Your task to perform on an android device: Search for the best custom wallets on Etsy. Image 0: 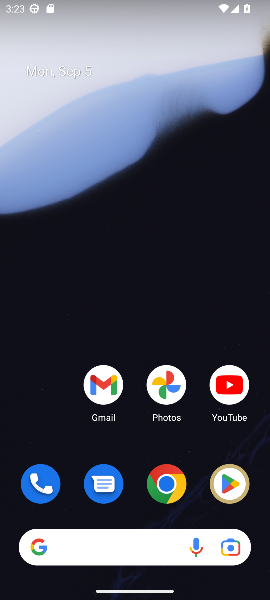
Step 0: click (170, 485)
Your task to perform on an android device: Search for the best custom wallets on Etsy. Image 1: 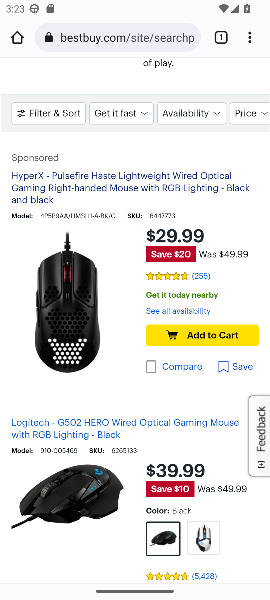
Step 1: click (151, 35)
Your task to perform on an android device: Search for the best custom wallets on Etsy. Image 2: 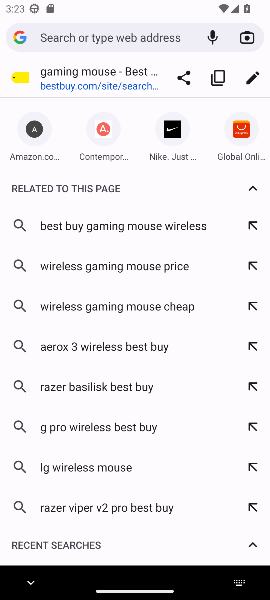
Step 2: type " Etsy"
Your task to perform on an android device: Search for the best custom wallets on Etsy. Image 3: 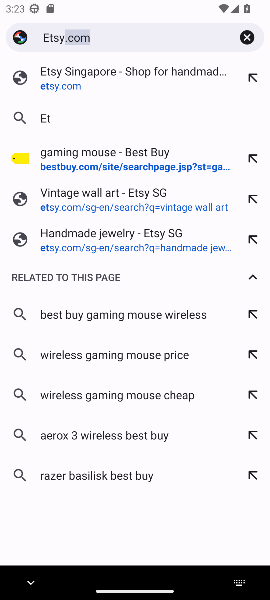
Step 3: press enter
Your task to perform on an android device: Search for the best custom wallets on Etsy. Image 4: 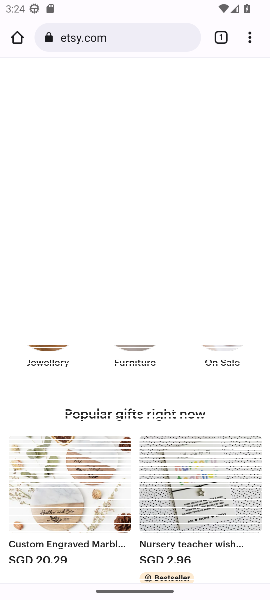
Step 4: drag from (98, 470) to (154, 355)
Your task to perform on an android device: Search for the best custom wallets on Etsy. Image 5: 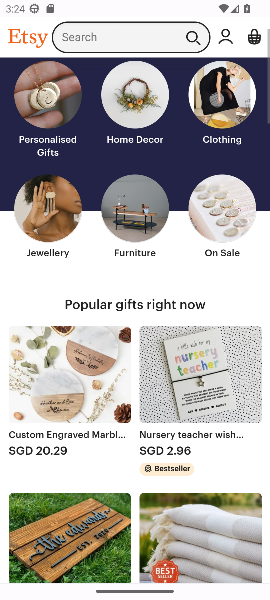
Step 5: click (126, 38)
Your task to perform on an android device: Search for the best custom wallets on Etsy. Image 6: 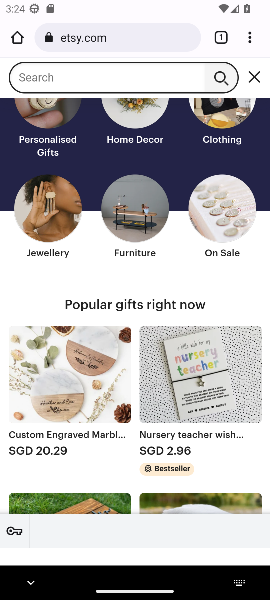
Step 6: click (79, 66)
Your task to perform on an android device: Search for the best custom wallets on Etsy. Image 7: 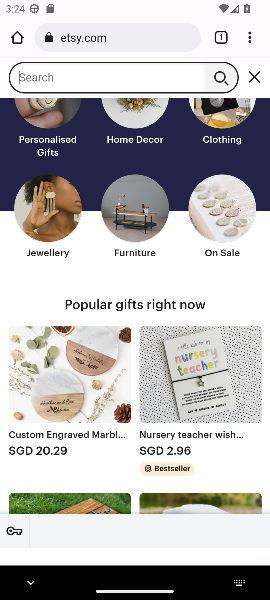
Step 7: type " custom wallets"
Your task to perform on an android device: Search for the best custom wallets on Etsy. Image 8: 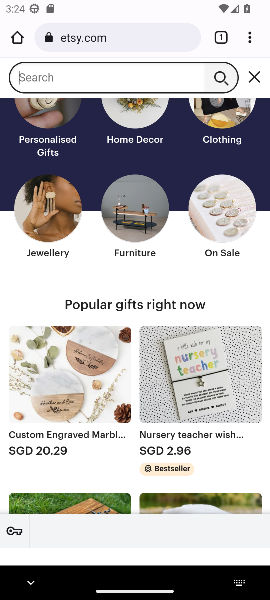
Step 8: press enter
Your task to perform on an android device: Search for the best custom wallets on Etsy. Image 9: 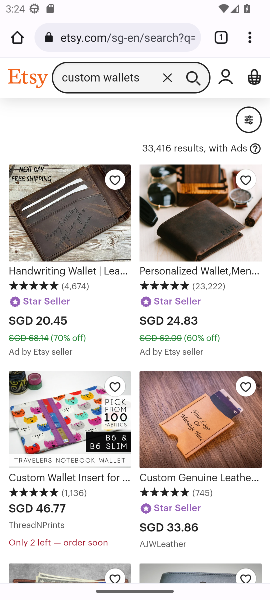
Step 9: task complete